Your task to perform on an android device: add a contact Image 0: 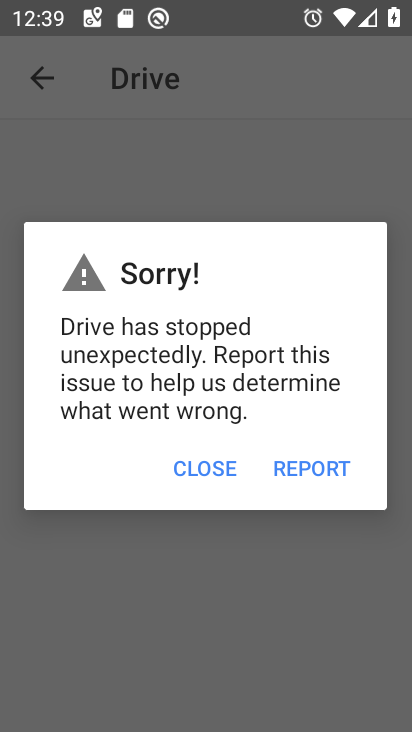
Step 0: press home button
Your task to perform on an android device: add a contact Image 1: 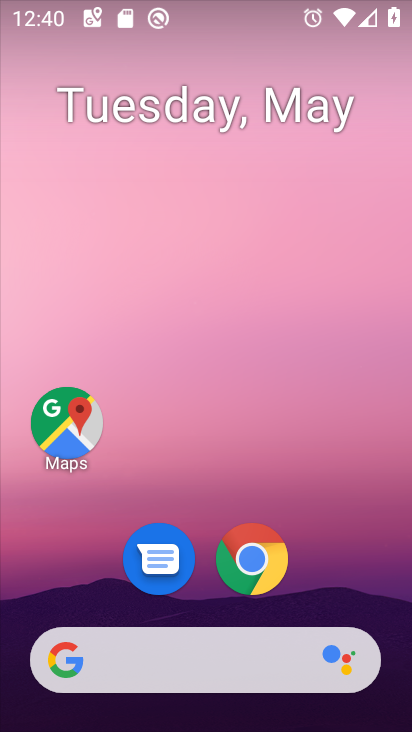
Step 1: drag from (333, 584) to (249, 51)
Your task to perform on an android device: add a contact Image 2: 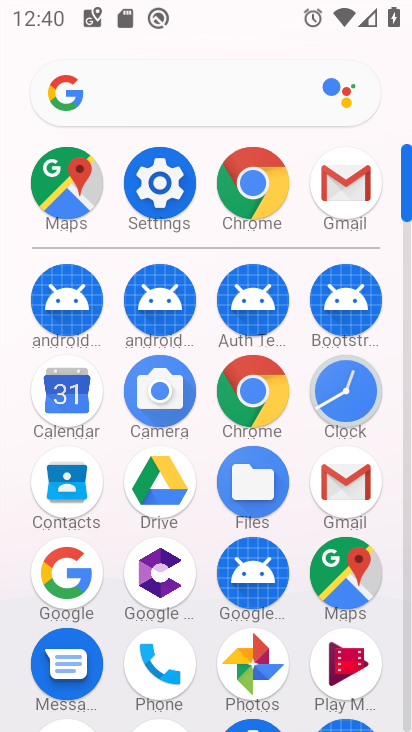
Step 2: click (260, 194)
Your task to perform on an android device: add a contact Image 3: 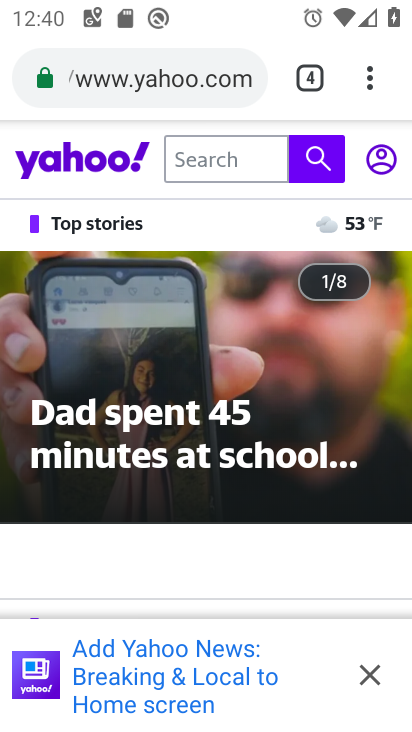
Step 3: press home button
Your task to perform on an android device: add a contact Image 4: 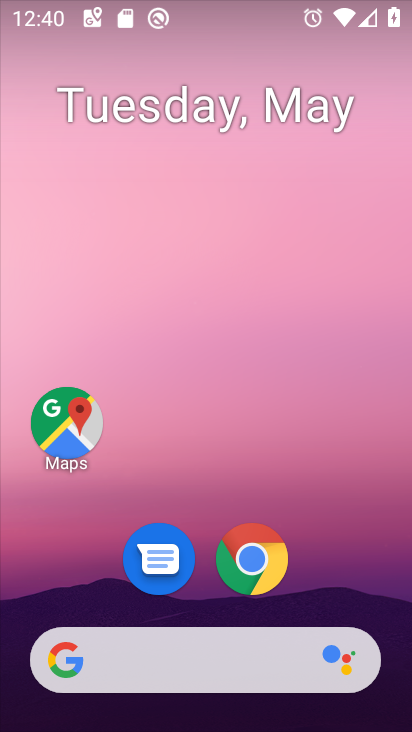
Step 4: drag from (352, 595) to (265, 138)
Your task to perform on an android device: add a contact Image 5: 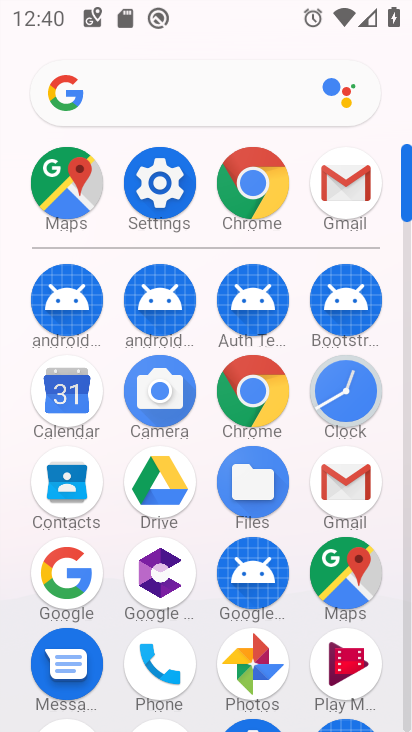
Step 5: click (70, 493)
Your task to perform on an android device: add a contact Image 6: 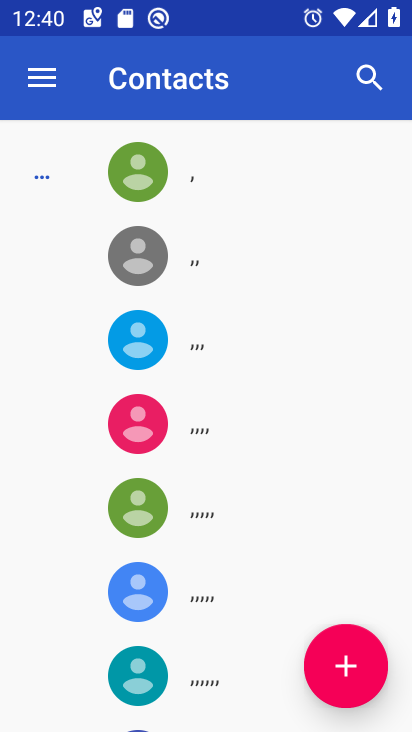
Step 6: click (365, 682)
Your task to perform on an android device: add a contact Image 7: 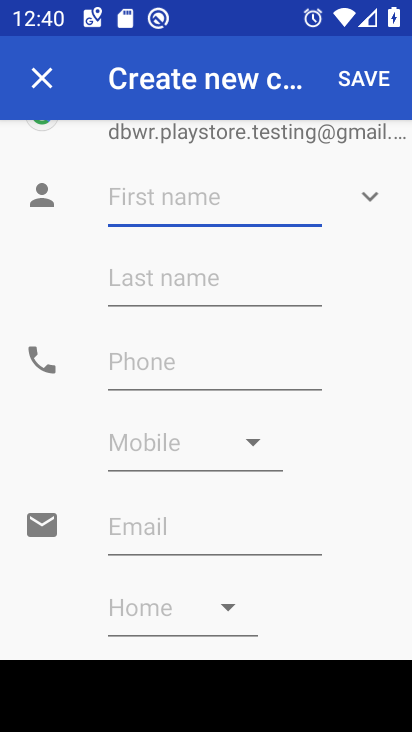
Step 7: click (247, 211)
Your task to perform on an android device: add a contact Image 8: 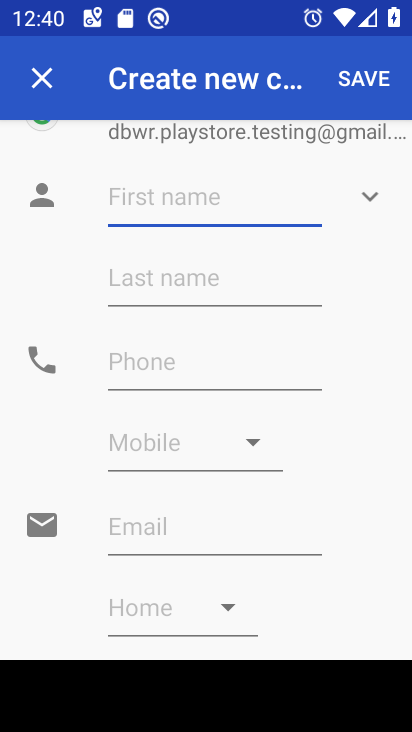
Step 8: type "vcgnvjgvjg"
Your task to perform on an android device: add a contact Image 9: 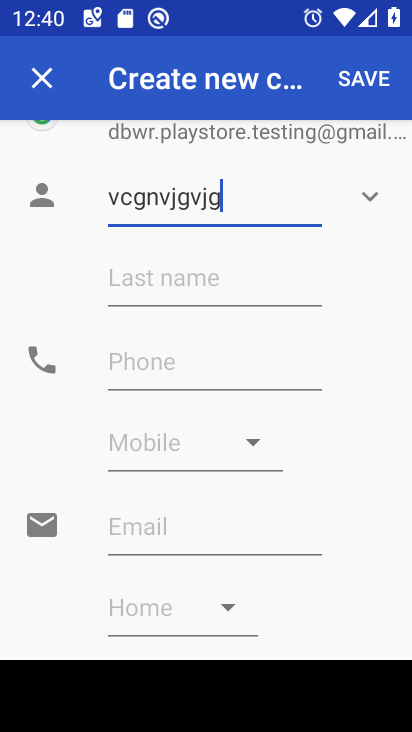
Step 9: click (248, 376)
Your task to perform on an android device: add a contact Image 10: 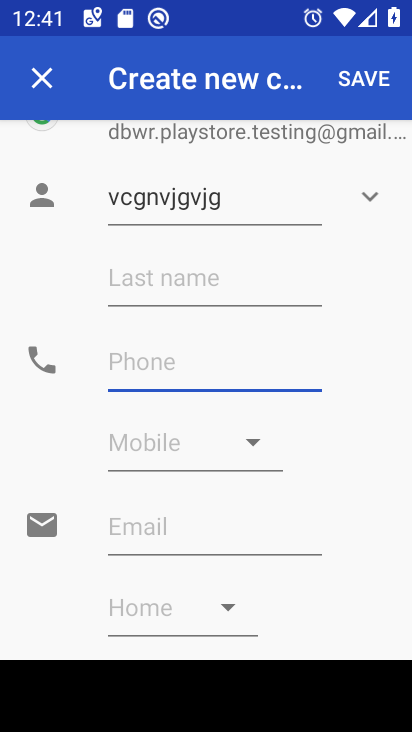
Step 10: type "5865858587"
Your task to perform on an android device: add a contact Image 11: 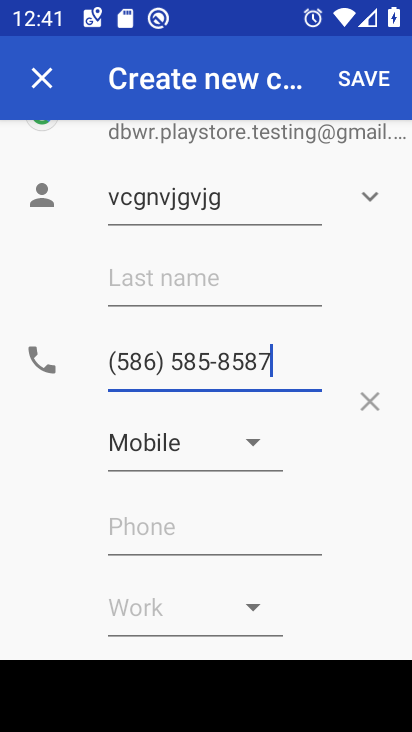
Step 11: click (383, 87)
Your task to perform on an android device: add a contact Image 12: 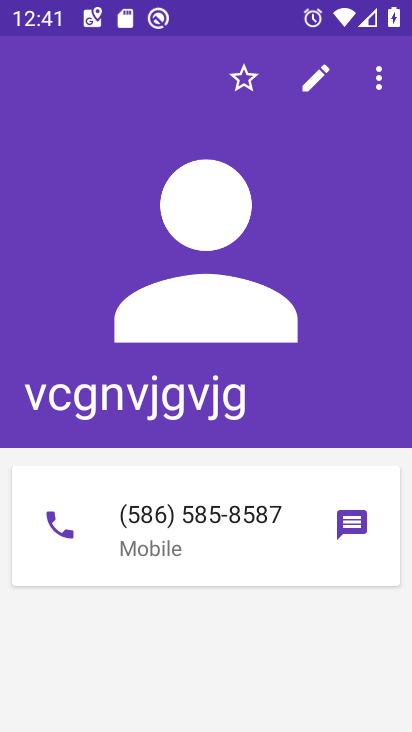
Step 12: task complete